Your task to perform on an android device: Go to sound settings Image 0: 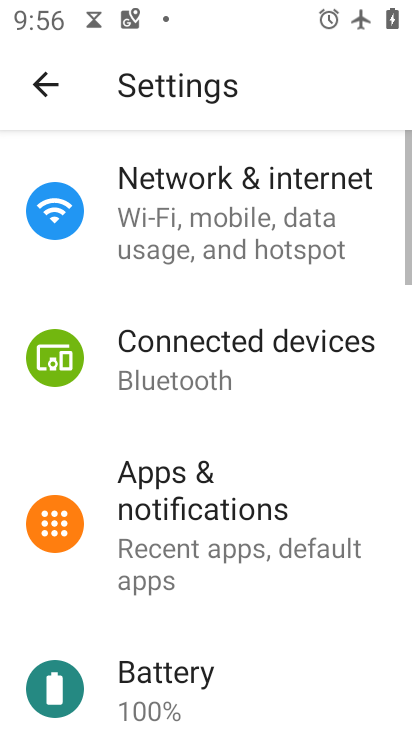
Step 0: press home button
Your task to perform on an android device: Go to sound settings Image 1: 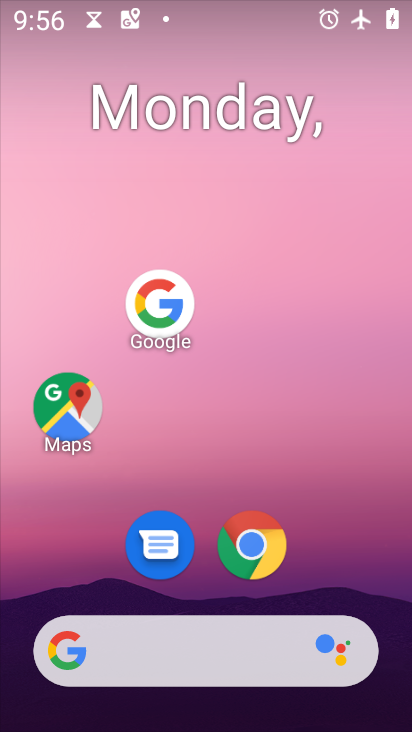
Step 1: drag from (206, 671) to (291, 128)
Your task to perform on an android device: Go to sound settings Image 2: 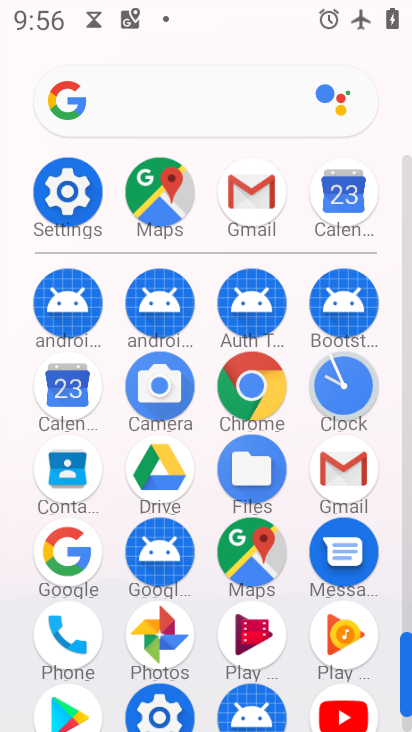
Step 2: click (75, 198)
Your task to perform on an android device: Go to sound settings Image 3: 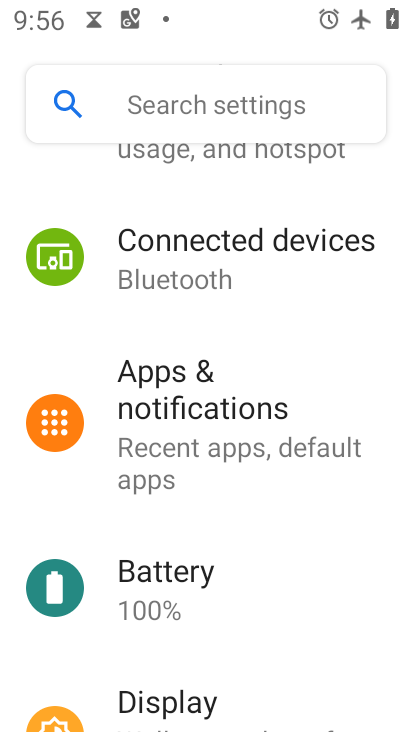
Step 3: drag from (253, 677) to (347, 187)
Your task to perform on an android device: Go to sound settings Image 4: 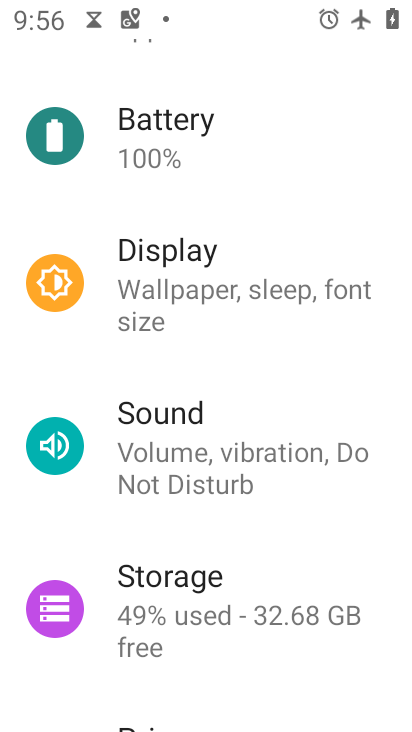
Step 4: click (210, 421)
Your task to perform on an android device: Go to sound settings Image 5: 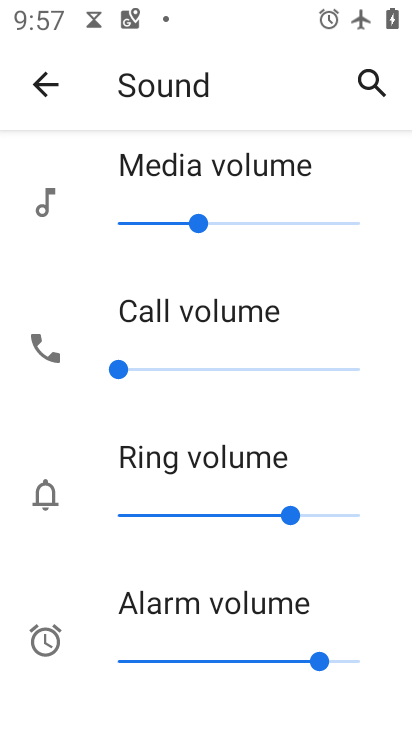
Step 5: task complete